Your task to perform on an android device: Open the Play Movies app and select the watchlist tab. Image 0: 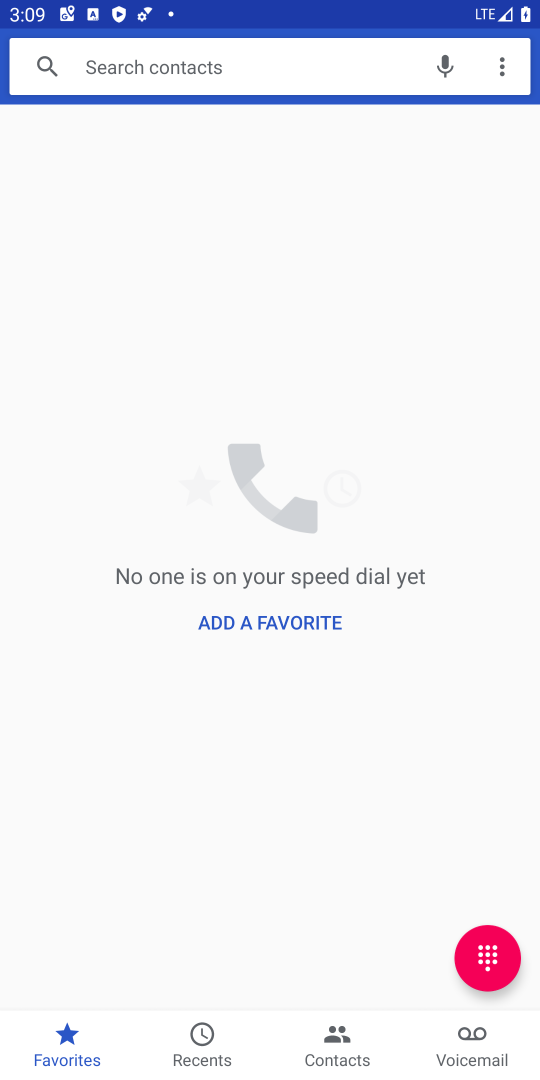
Step 0: press home button
Your task to perform on an android device: Open the Play Movies app and select the watchlist tab. Image 1: 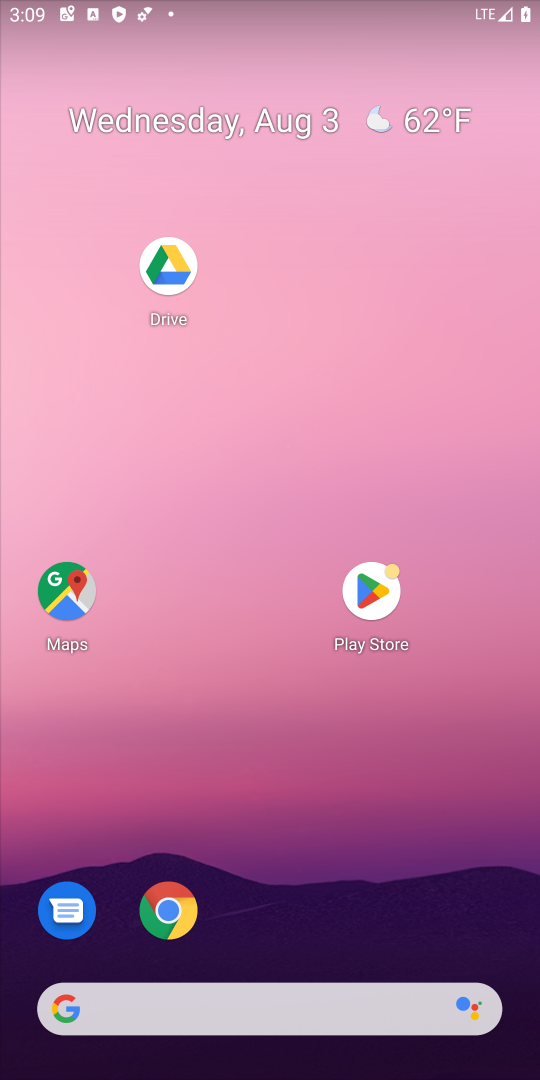
Step 1: drag from (275, 524) to (211, 3)
Your task to perform on an android device: Open the Play Movies app and select the watchlist tab. Image 2: 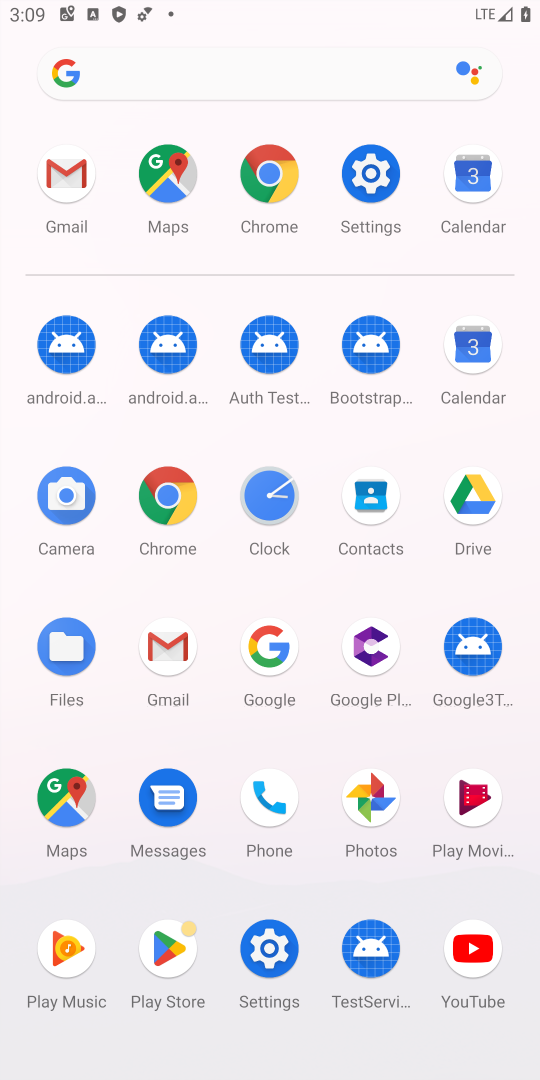
Step 2: click (475, 813)
Your task to perform on an android device: Open the Play Movies app and select the watchlist tab. Image 3: 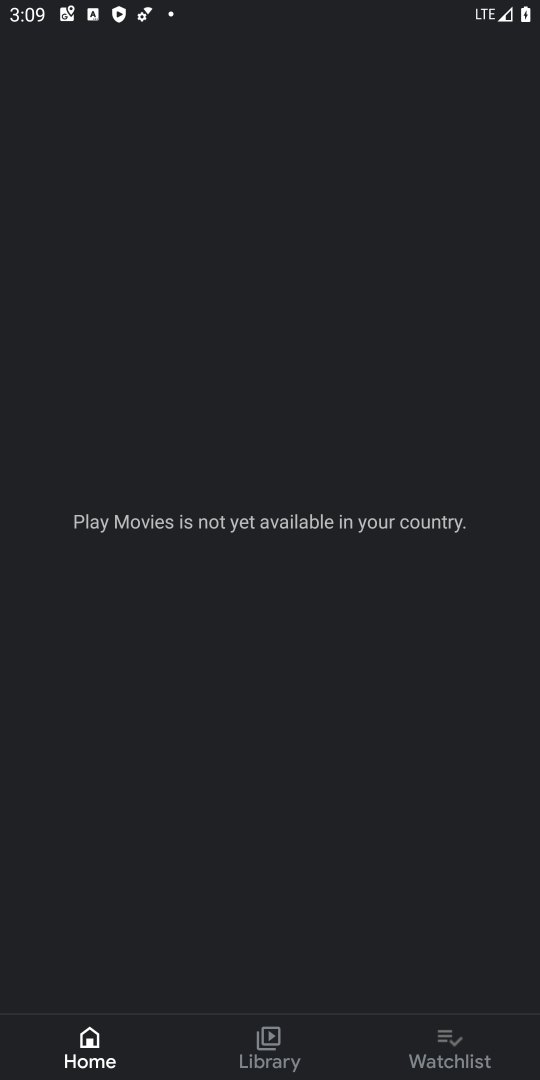
Step 3: click (451, 1044)
Your task to perform on an android device: Open the Play Movies app and select the watchlist tab. Image 4: 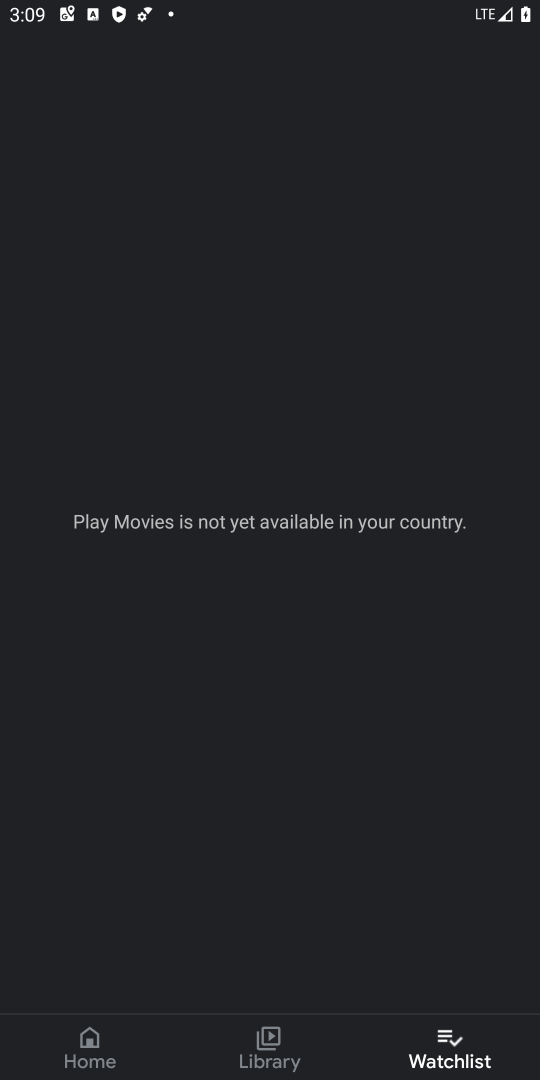
Step 4: task complete